Your task to perform on an android device: find photos in the google photos app Image 0: 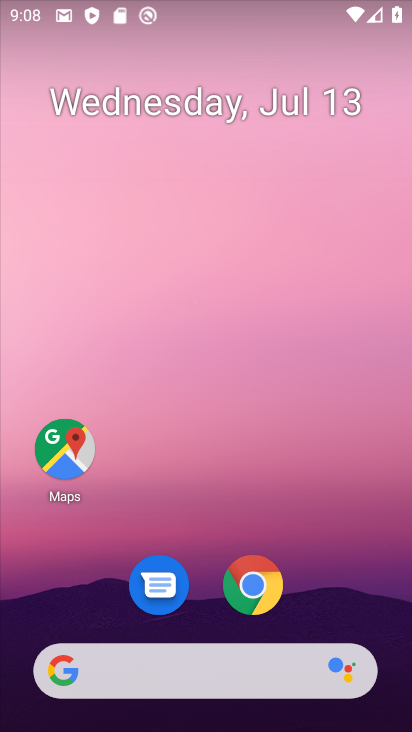
Step 0: drag from (243, 512) to (249, 16)
Your task to perform on an android device: find photos in the google photos app Image 1: 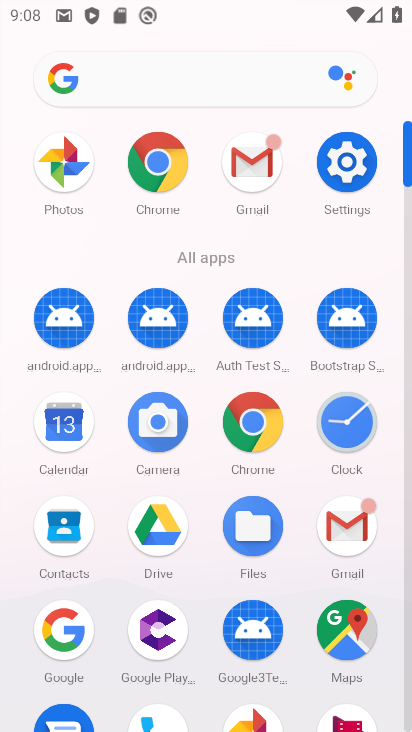
Step 1: drag from (206, 483) to (223, 210)
Your task to perform on an android device: find photos in the google photos app Image 2: 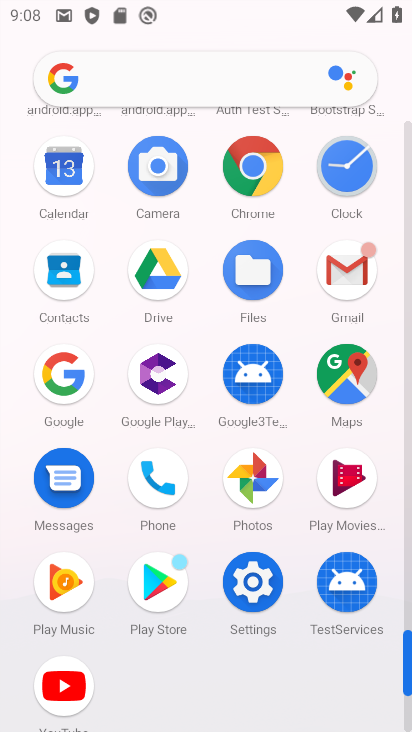
Step 2: drag from (205, 137) to (235, 578)
Your task to perform on an android device: find photos in the google photos app Image 3: 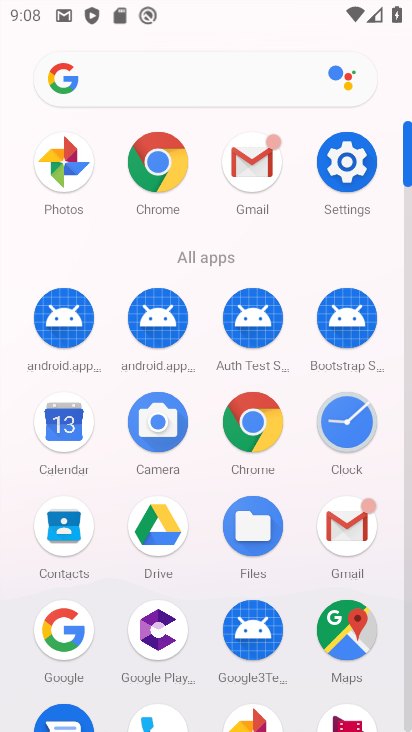
Step 3: click (70, 163)
Your task to perform on an android device: find photos in the google photos app Image 4: 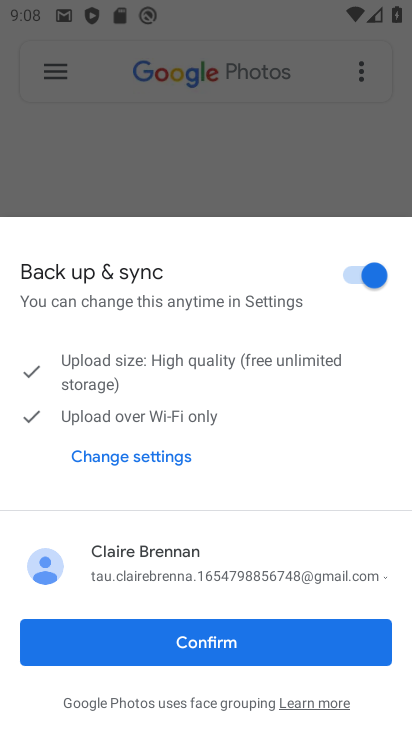
Step 4: click (231, 642)
Your task to perform on an android device: find photos in the google photos app Image 5: 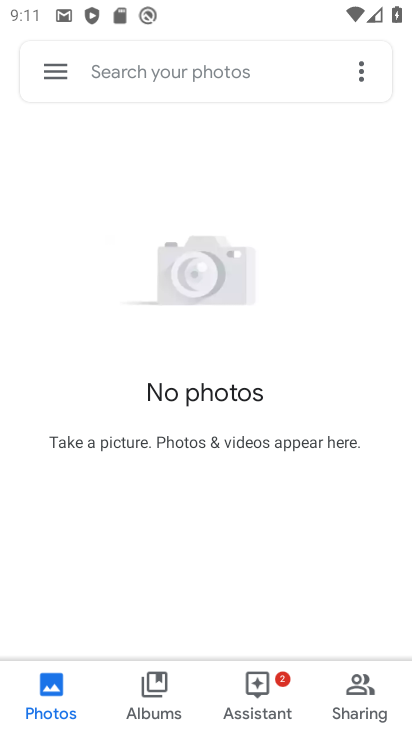
Step 5: task complete